Your task to perform on an android device: Add "usb-a" to the cart on newegg Image 0: 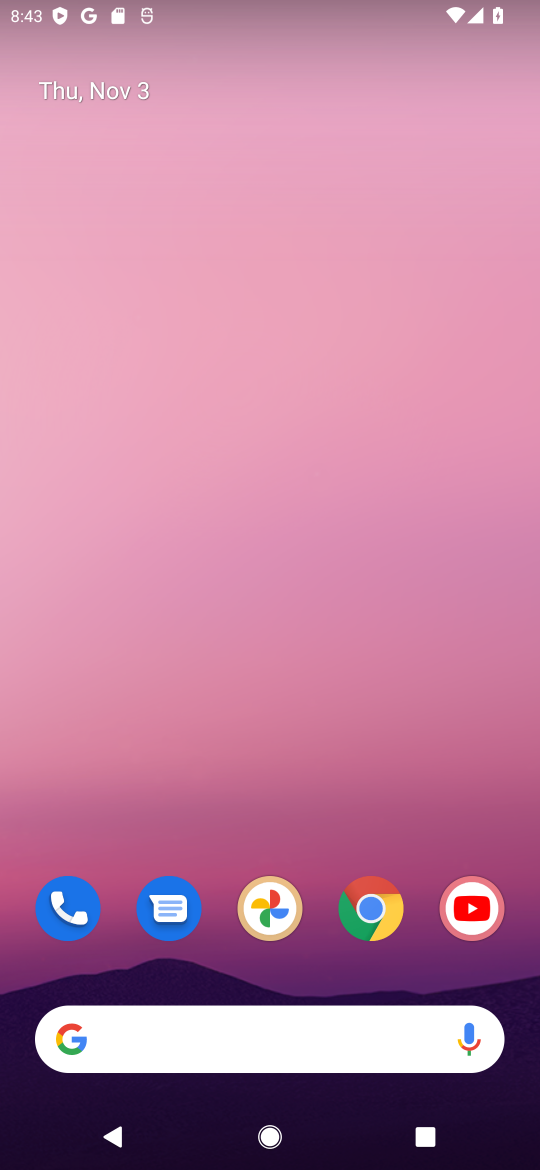
Step 0: click (358, 891)
Your task to perform on an android device: Add "usb-a" to the cart on newegg Image 1: 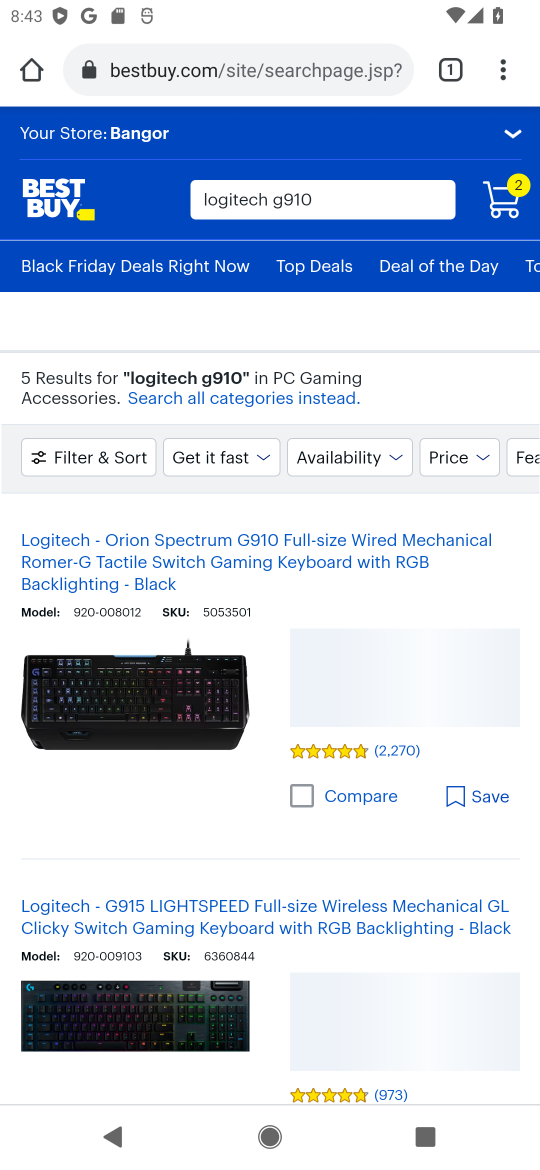
Step 1: click (37, 62)
Your task to perform on an android device: Add "usb-a" to the cart on newegg Image 2: 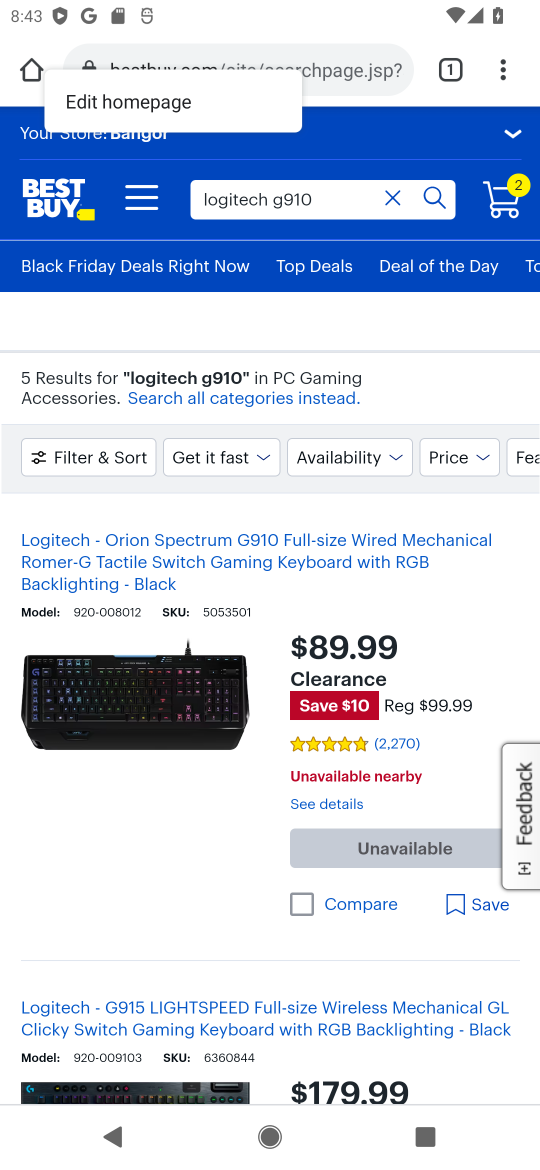
Step 2: click (23, 70)
Your task to perform on an android device: Add "usb-a" to the cart on newegg Image 3: 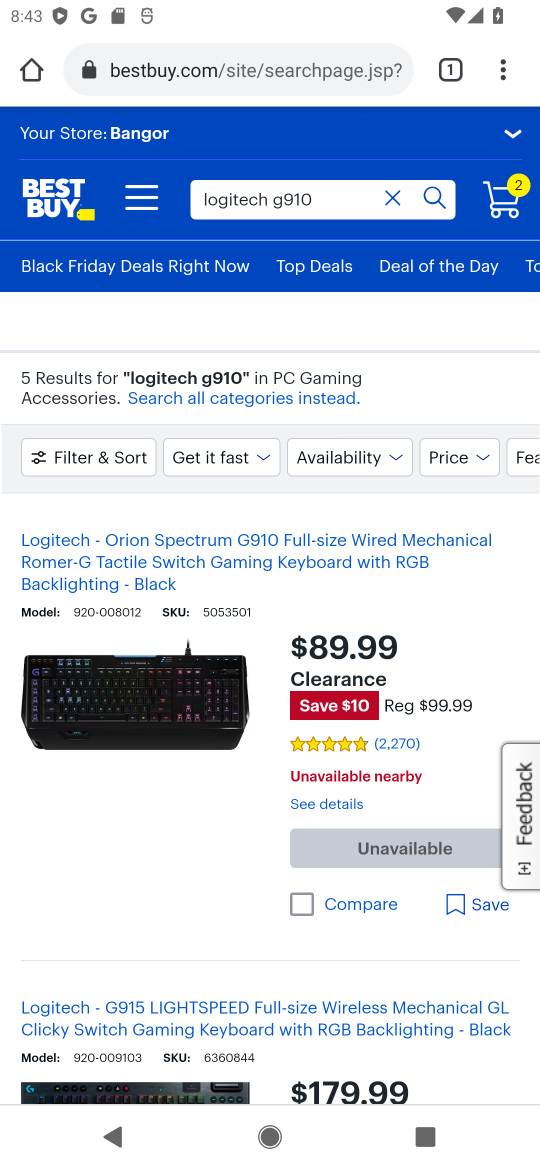
Step 3: click (23, 70)
Your task to perform on an android device: Add "usb-a" to the cart on newegg Image 4: 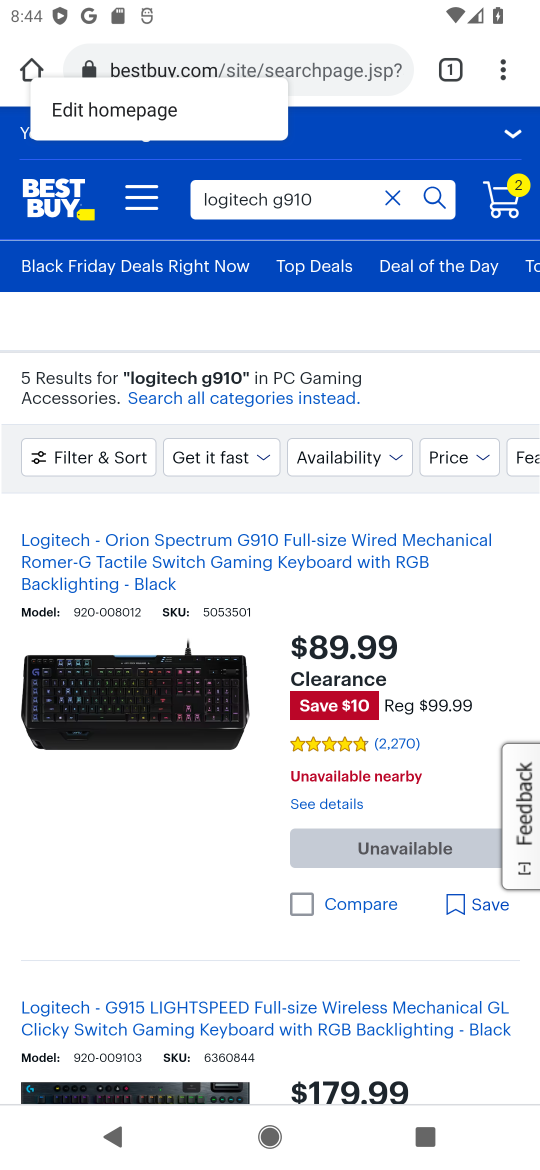
Step 4: task complete